Your task to perform on an android device: toggle data saver in the chrome app Image 0: 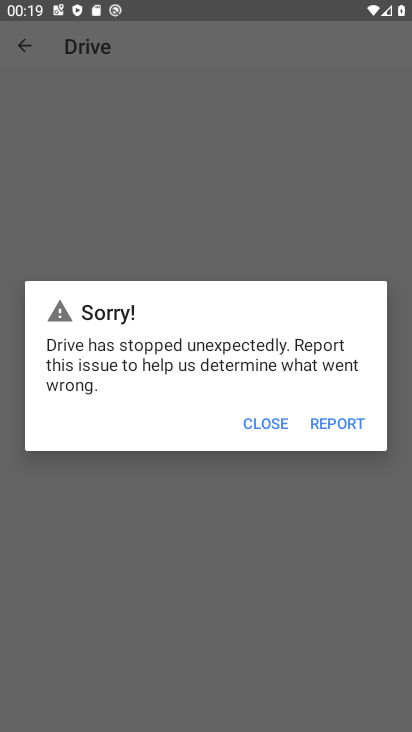
Step 0: press home button
Your task to perform on an android device: toggle data saver in the chrome app Image 1: 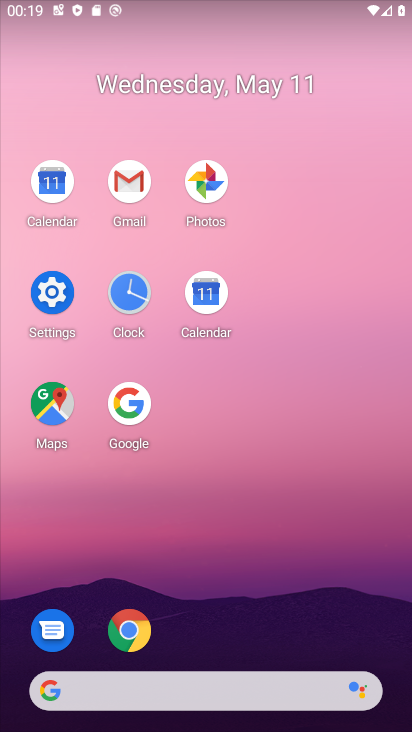
Step 1: click (134, 621)
Your task to perform on an android device: toggle data saver in the chrome app Image 2: 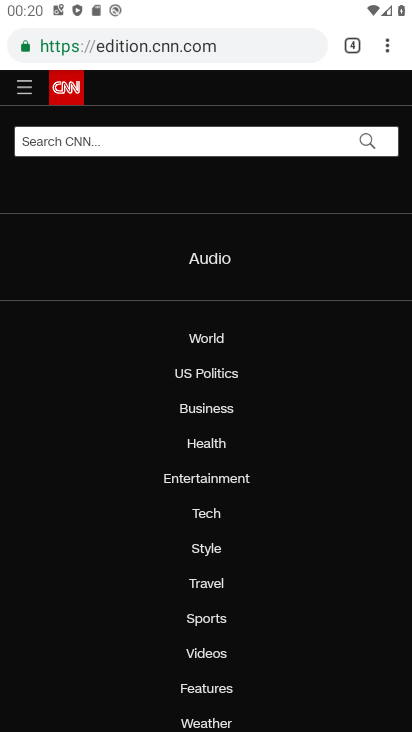
Step 2: click (385, 53)
Your task to perform on an android device: toggle data saver in the chrome app Image 3: 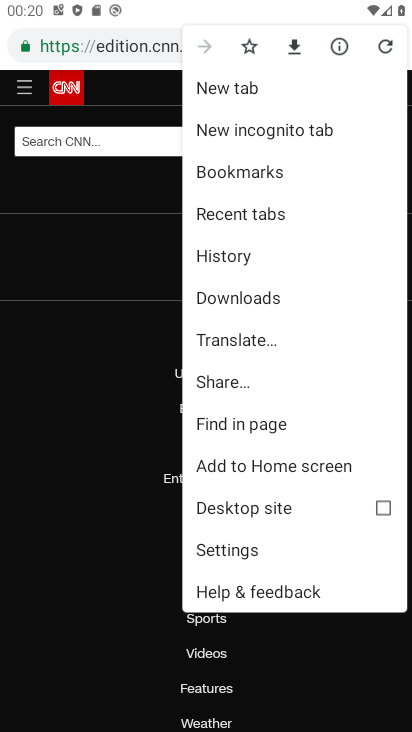
Step 3: click (252, 546)
Your task to perform on an android device: toggle data saver in the chrome app Image 4: 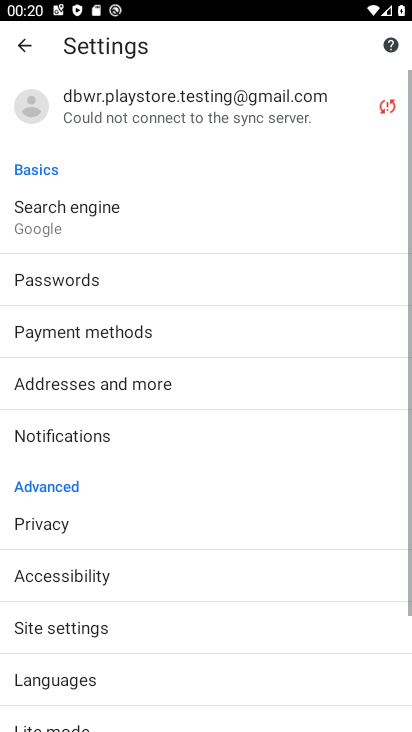
Step 4: drag from (263, 607) to (290, 221)
Your task to perform on an android device: toggle data saver in the chrome app Image 5: 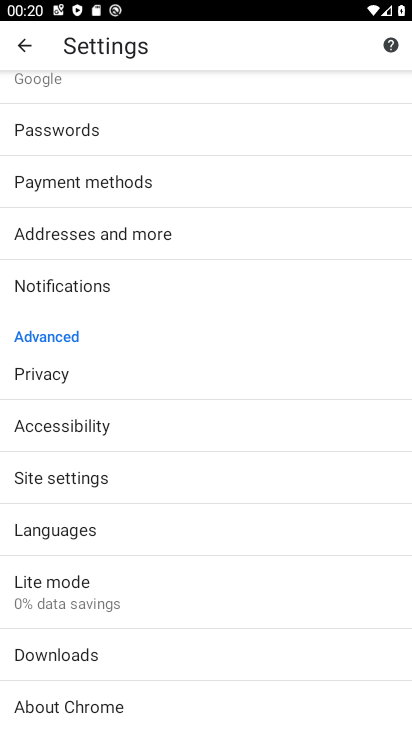
Step 5: click (146, 600)
Your task to perform on an android device: toggle data saver in the chrome app Image 6: 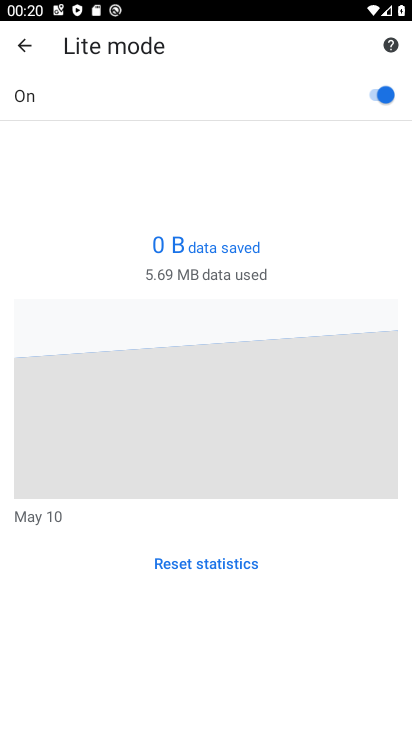
Step 6: click (377, 98)
Your task to perform on an android device: toggle data saver in the chrome app Image 7: 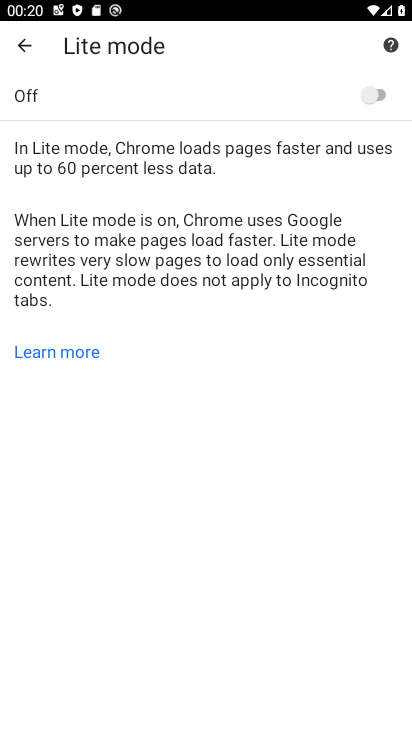
Step 7: task complete